Your task to perform on an android device: toggle wifi Image 0: 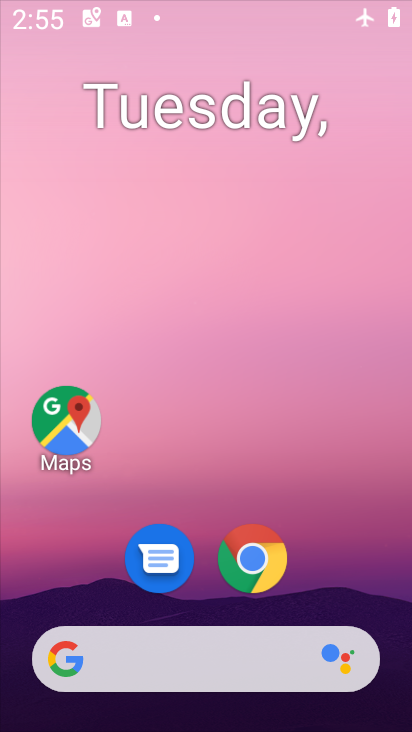
Step 0: click (235, 545)
Your task to perform on an android device: toggle wifi Image 1: 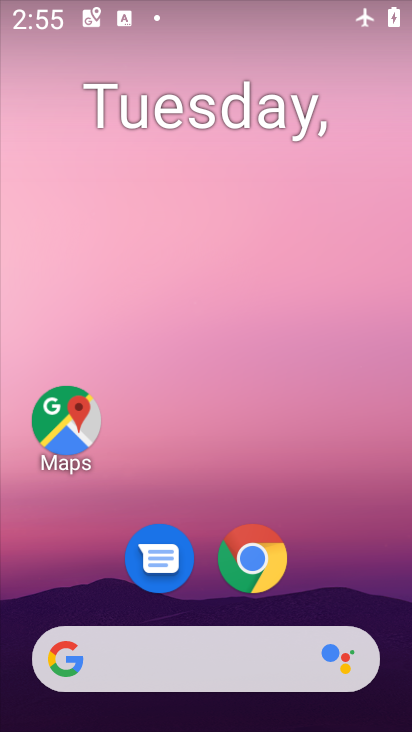
Step 1: drag from (196, 465) to (203, 66)
Your task to perform on an android device: toggle wifi Image 2: 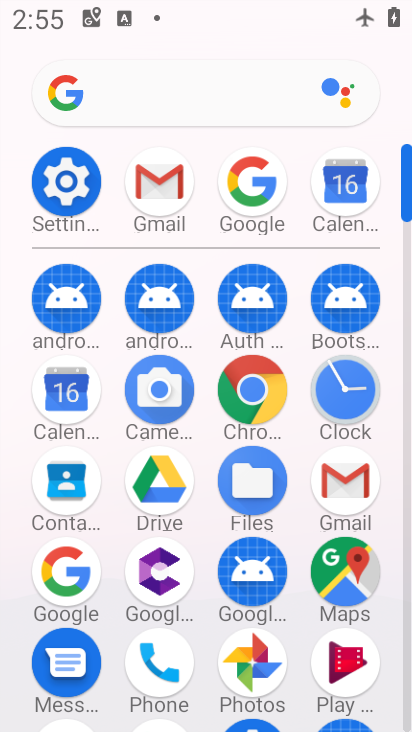
Step 2: click (68, 185)
Your task to perform on an android device: toggle wifi Image 3: 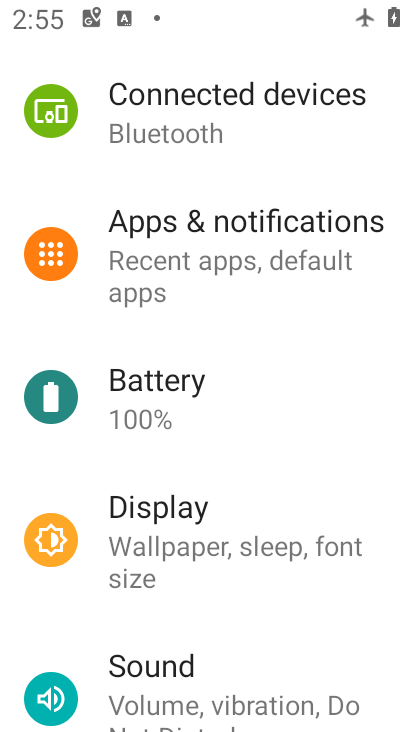
Step 3: drag from (213, 166) to (231, 585)
Your task to perform on an android device: toggle wifi Image 4: 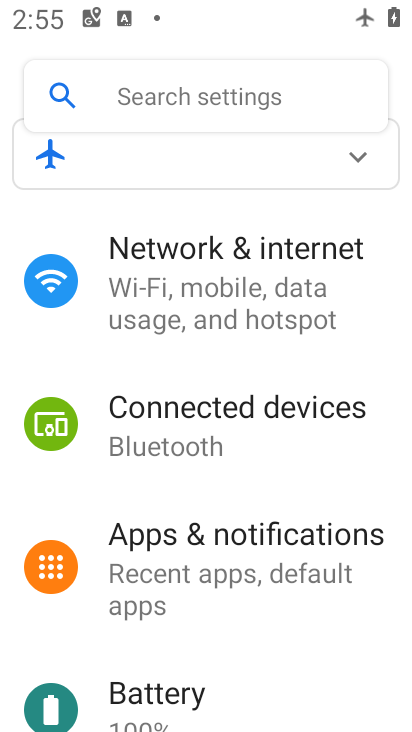
Step 4: click (167, 294)
Your task to perform on an android device: toggle wifi Image 5: 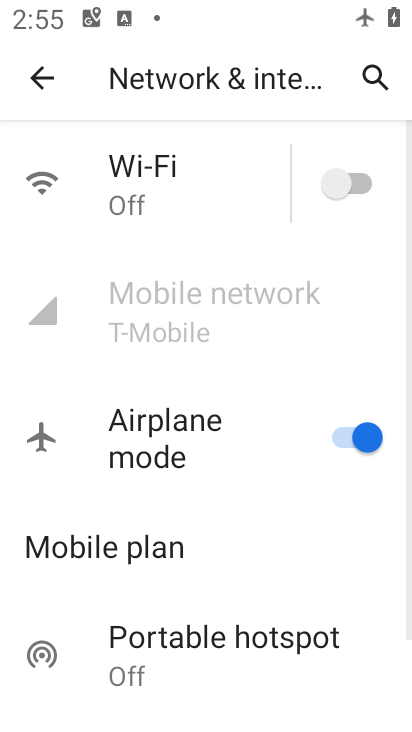
Step 5: click (365, 178)
Your task to perform on an android device: toggle wifi Image 6: 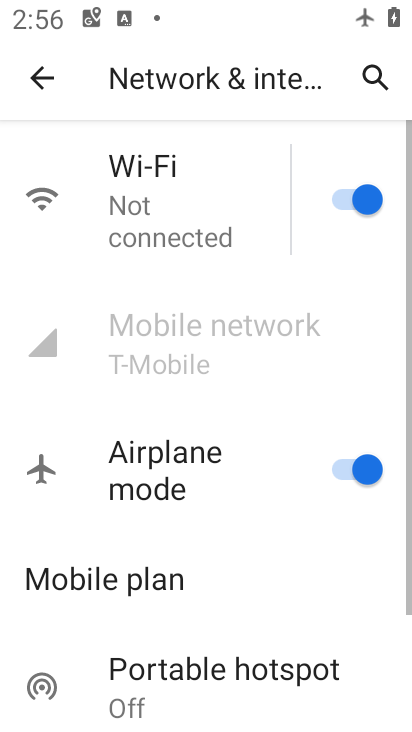
Step 6: task complete